Your task to perform on an android device: install app "Google Maps" Image 0: 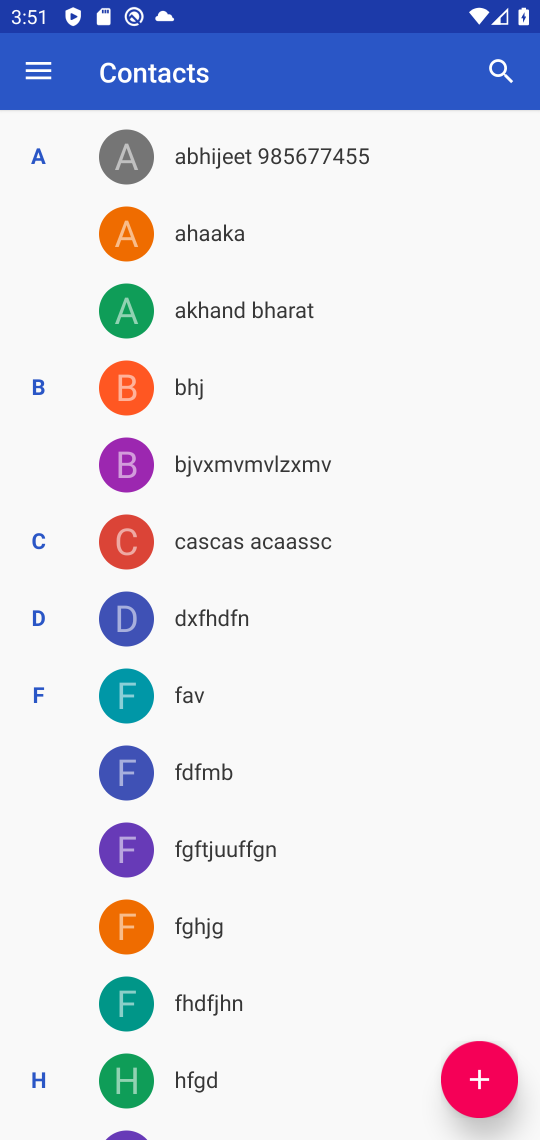
Step 0: press home button
Your task to perform on an android device: install app "Google Maps" Image 1: 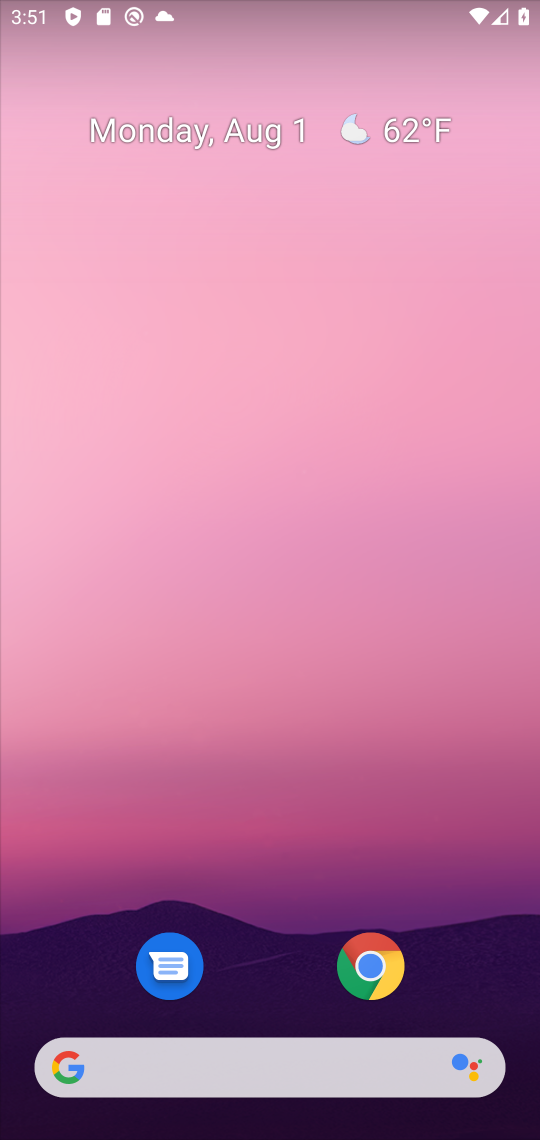
Step 1: drag from (178, 686) to (131, 119)
Your task to perform on an android device: install app "Google Maps" Image 2: 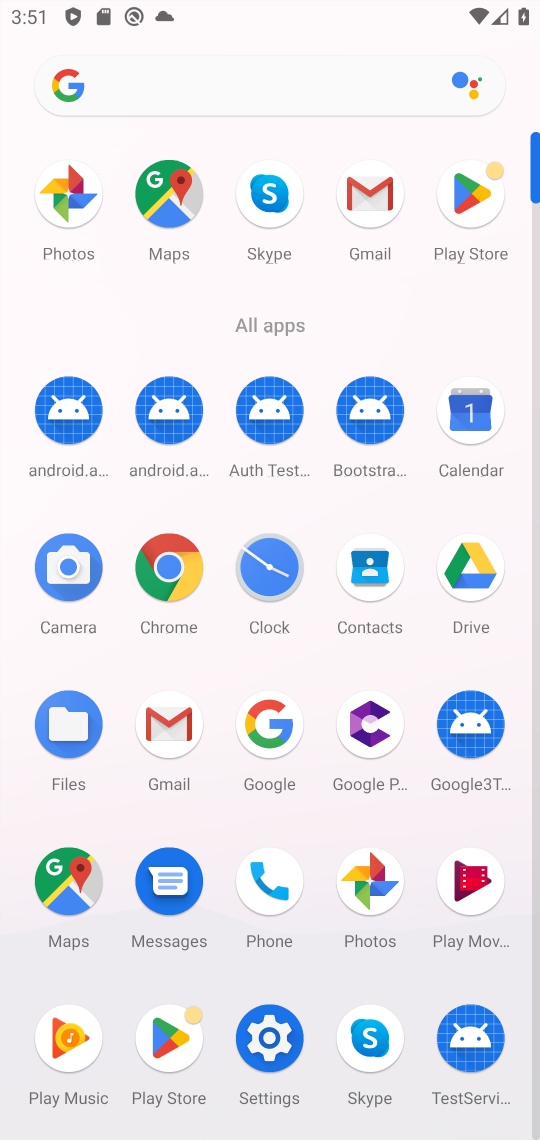
Step 2: click (73, 889)
Your task to perform on an android device: install app "Google Maps" Image 3: 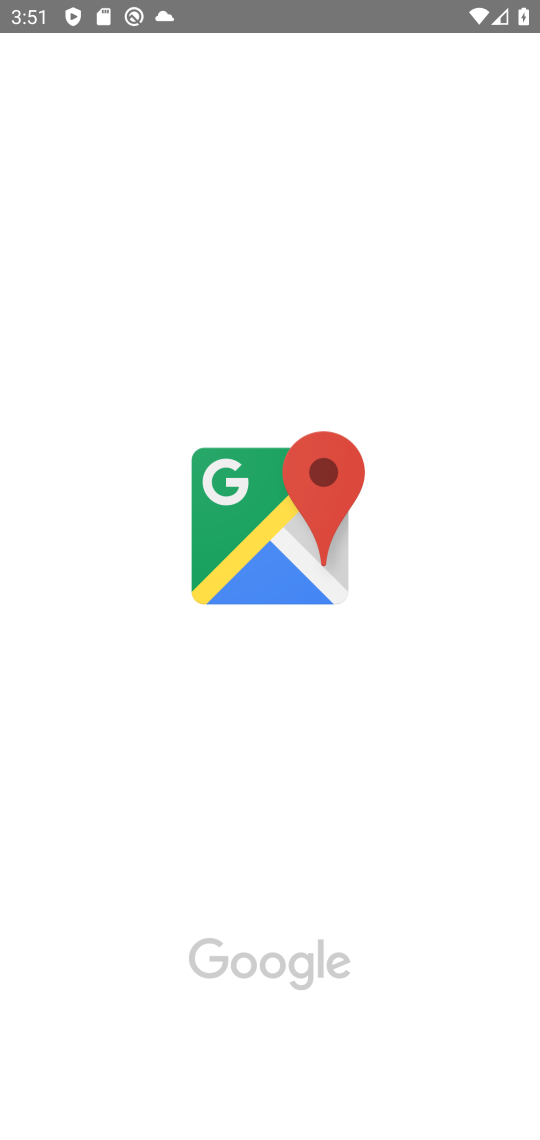
Step 3: task complete